Your task to perform on an android device: open app "Gmail" Image 0: 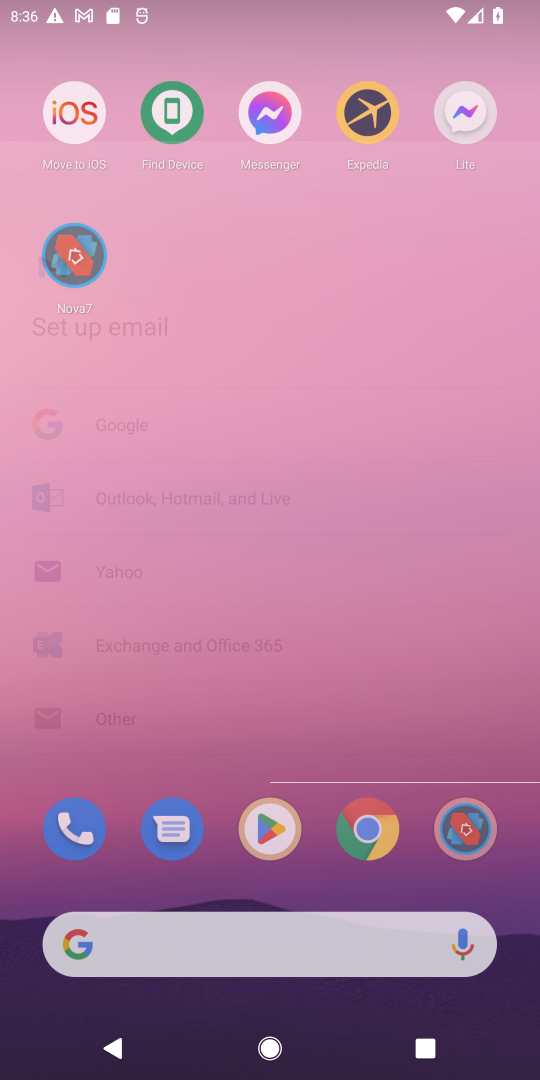
Step 0: press home button
Your task to perform on an android device: open app "Gmail" Image 1: 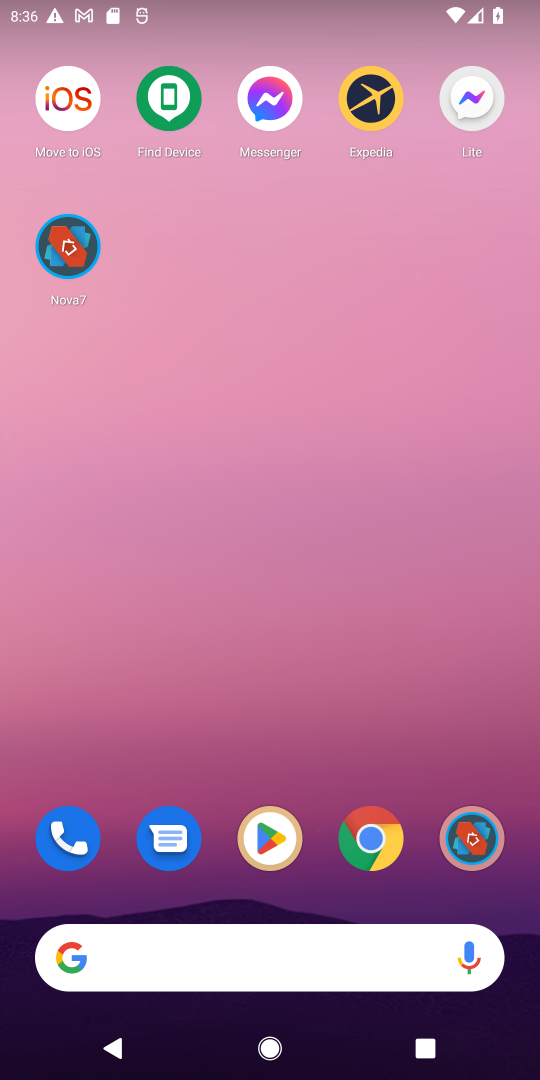
Step 1: click (267, 829)
Your task to perform on an android device: open app "Gmail" Image 2: 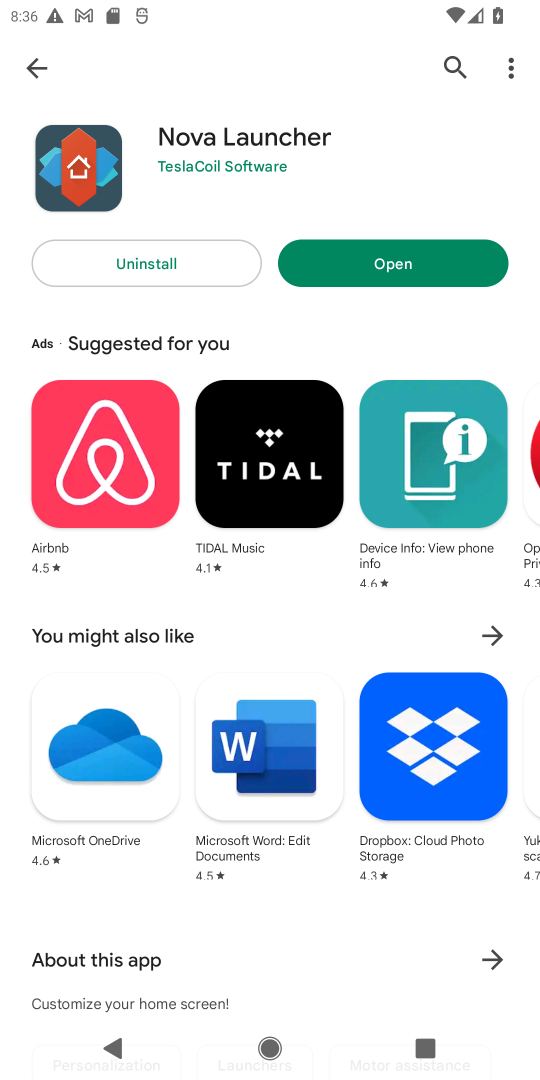
Step 2: click (452, 63)
Your task to perform on an android device: open app "Gmail" Image 3: 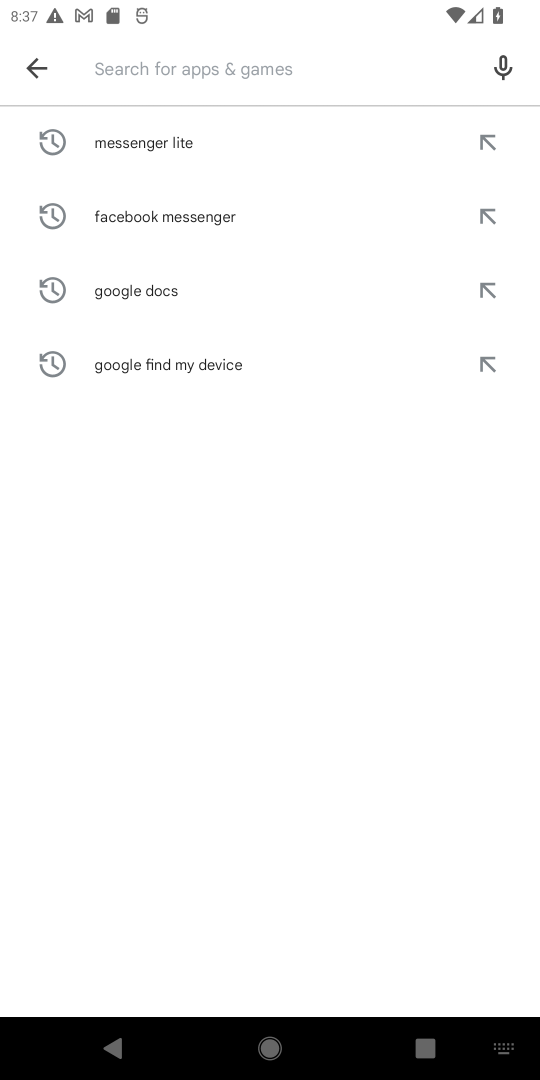
Step 3: type "Gmail"
Your task to perform on an android device: open app "Gmail" Image 4: 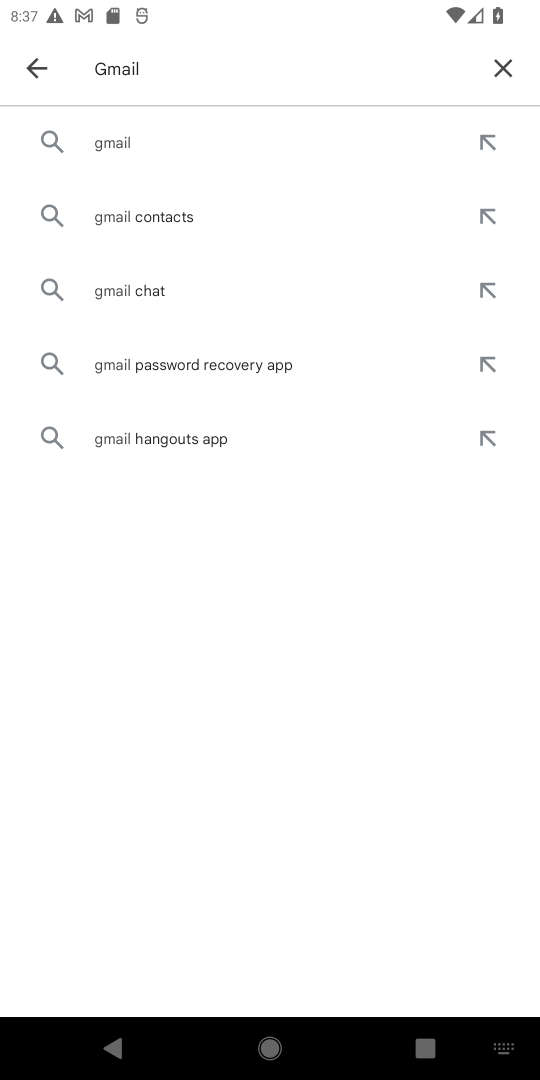
Step 4: click (145, 138)
Your task to perform on an android device: open app "Gmail" Image 5: 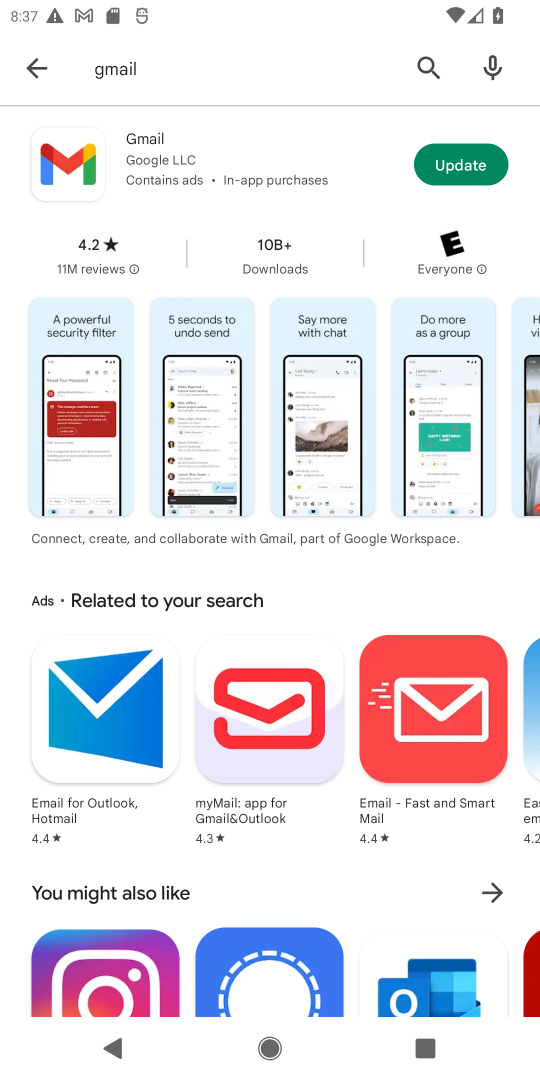
Step 5: click (461, 167)
Your task to perform on an android device: open app "Gmail" Image 6: 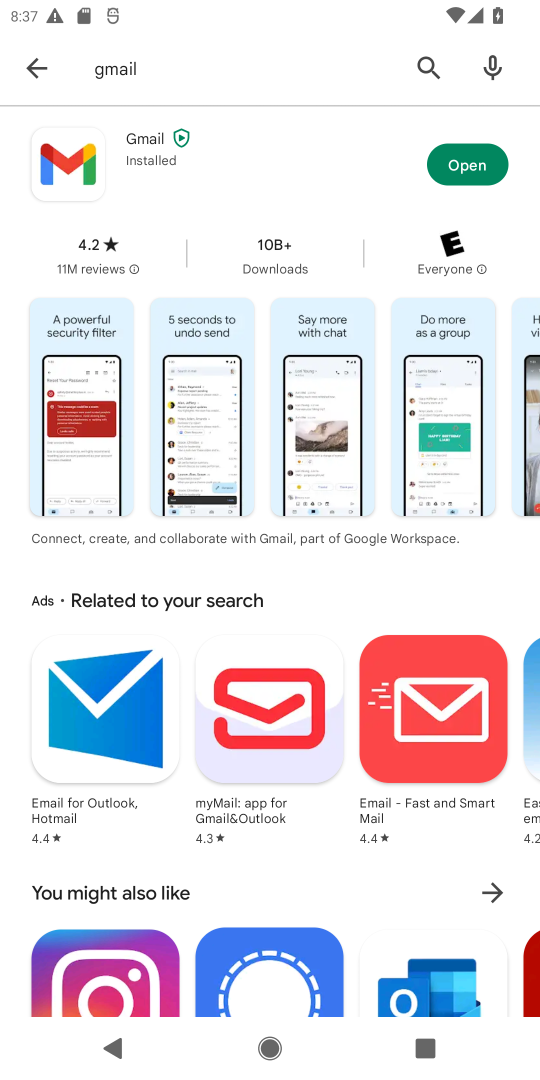
Step 6: click (460, 163)
Your task to perform on an android device: open app "Gmail" Image 7: 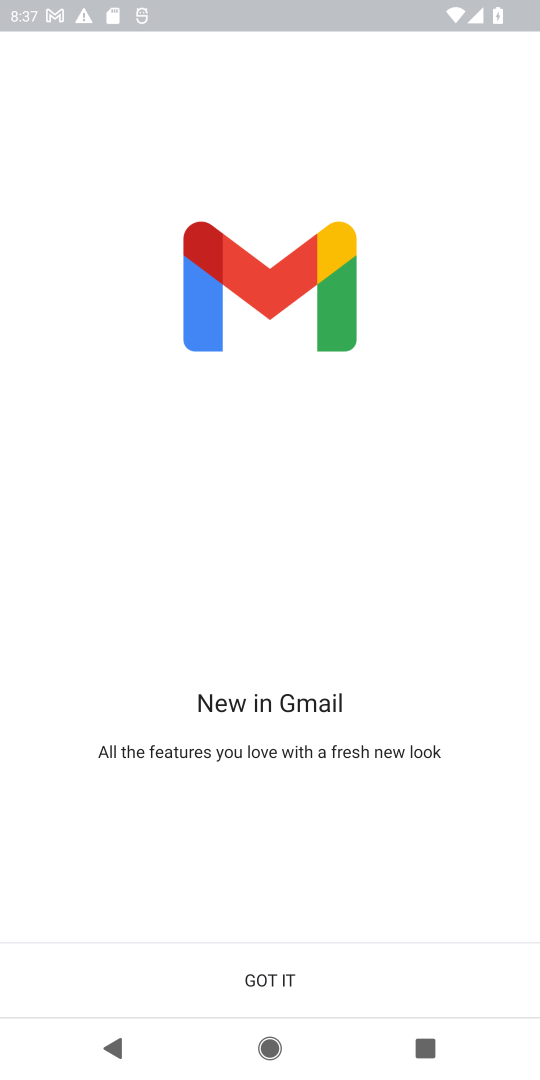
Step 7: click (279, 988)
Your task to perform on an android device: open app "Gmail" Image 8: 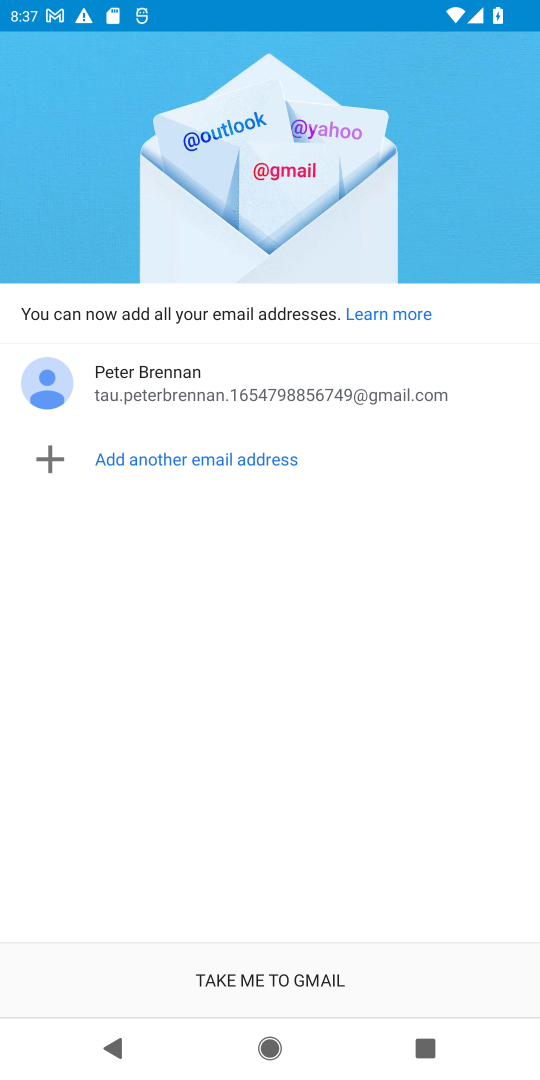
Step 8: click (274, 986)
Your task to perform on an android device: open app "Gmail" Image 9: 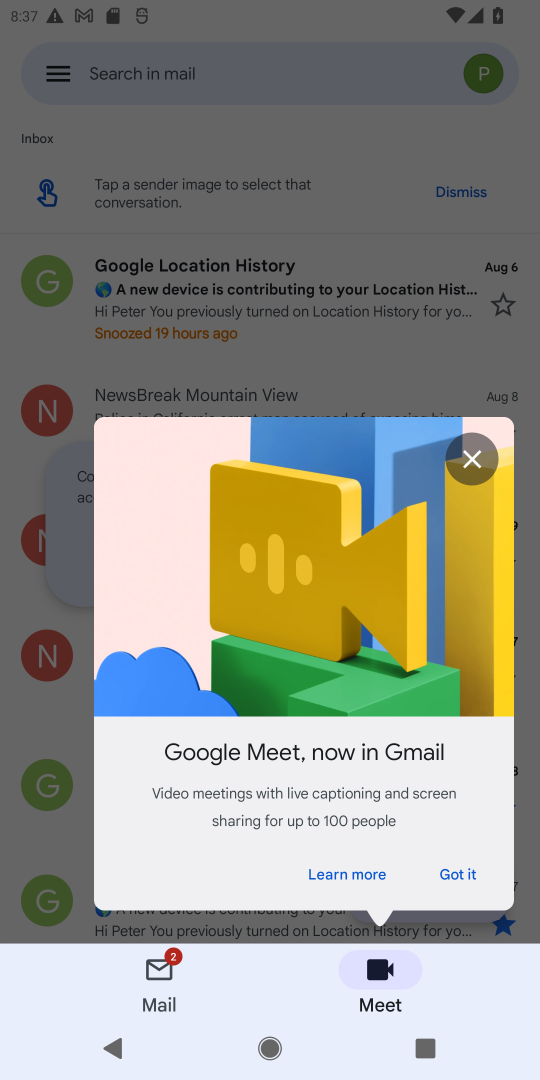
Step 9: click (466, 870)
Your task to perform on an android device: open app "Gmail" Image 10: 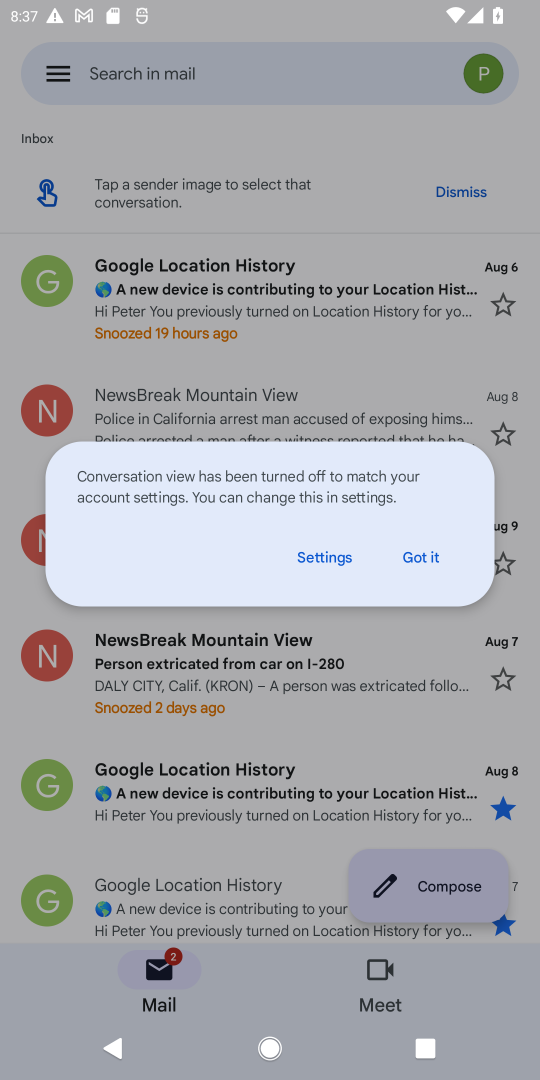
Step 10: click (423, 561)
Your task to perform on an android device: open app "Gmail" Image 11: 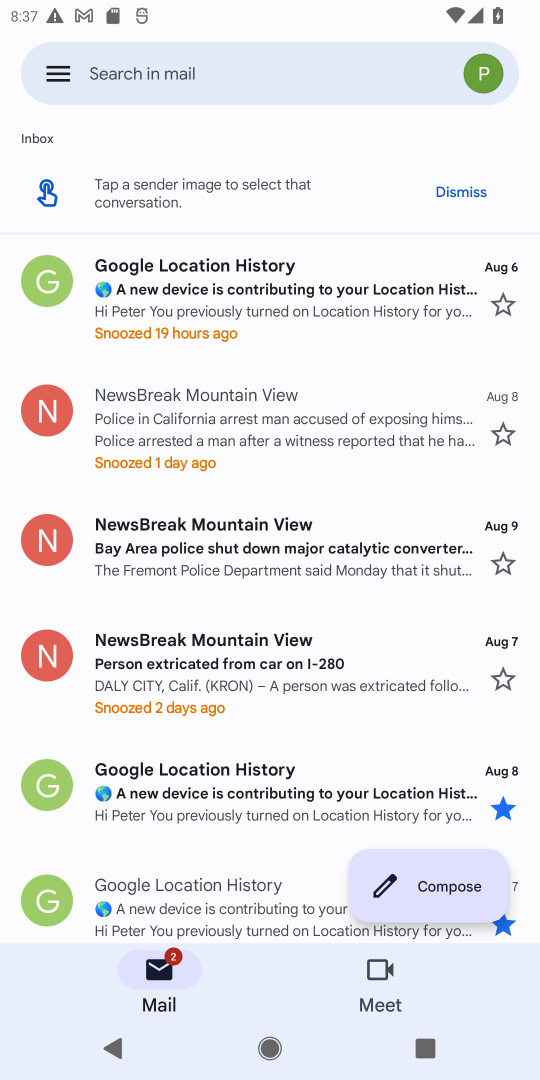
Step 11: task complete